Your task to perform on an android device: Search for the best rated electric lawnmower on Home Depot Image 0: 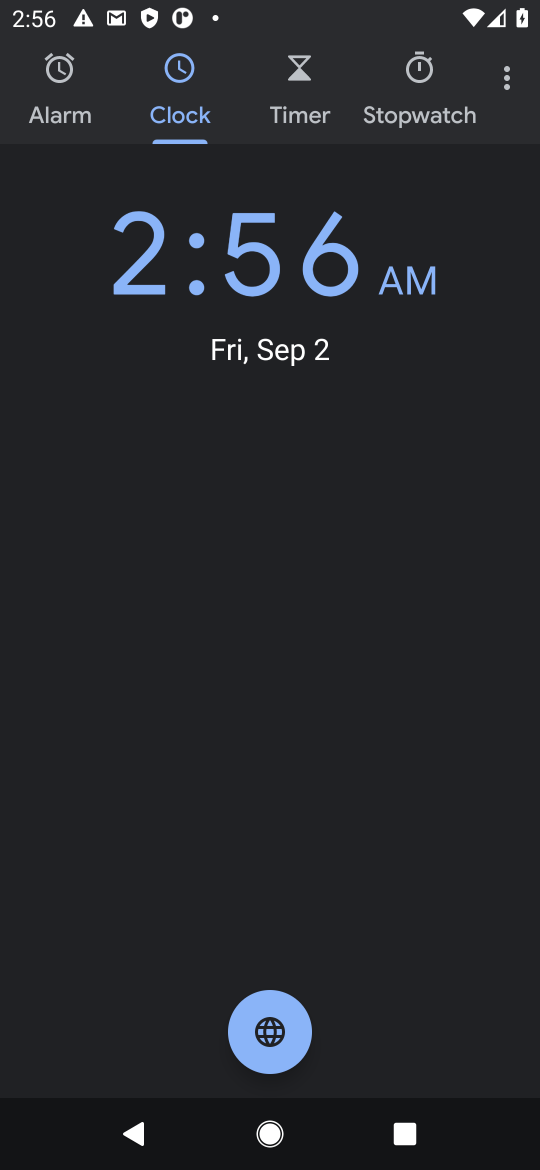
Step 0: press home button
Your task to perform on an android device: Search for the best rated electric lawnmower on Home Depot Image 1: 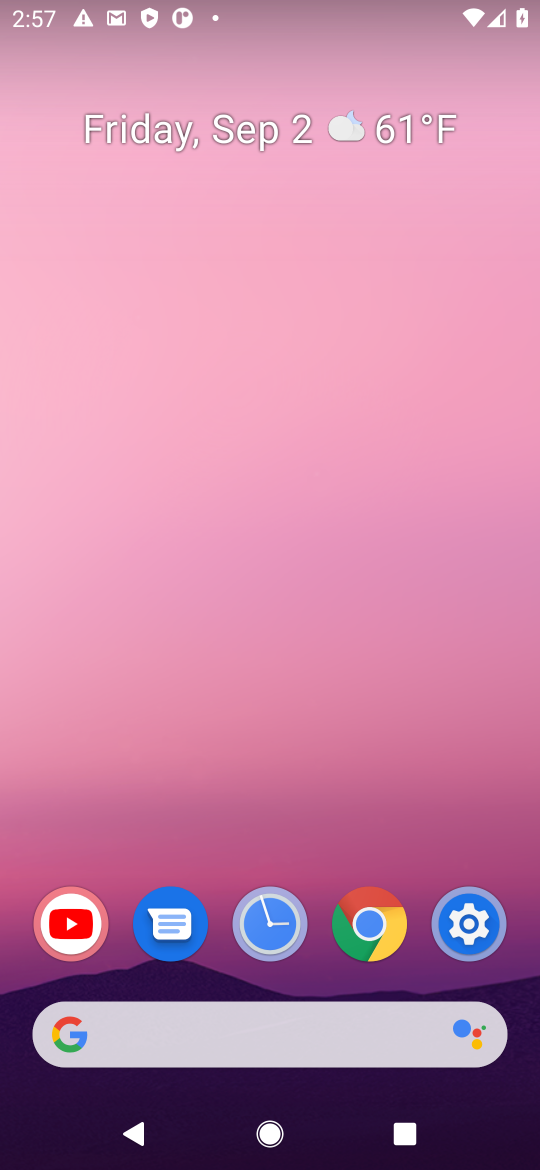
Step 1: click (356, 1035)
Your task to perform on an android device: Search for the best rated electric lawnmower on Home Depot Image 2: 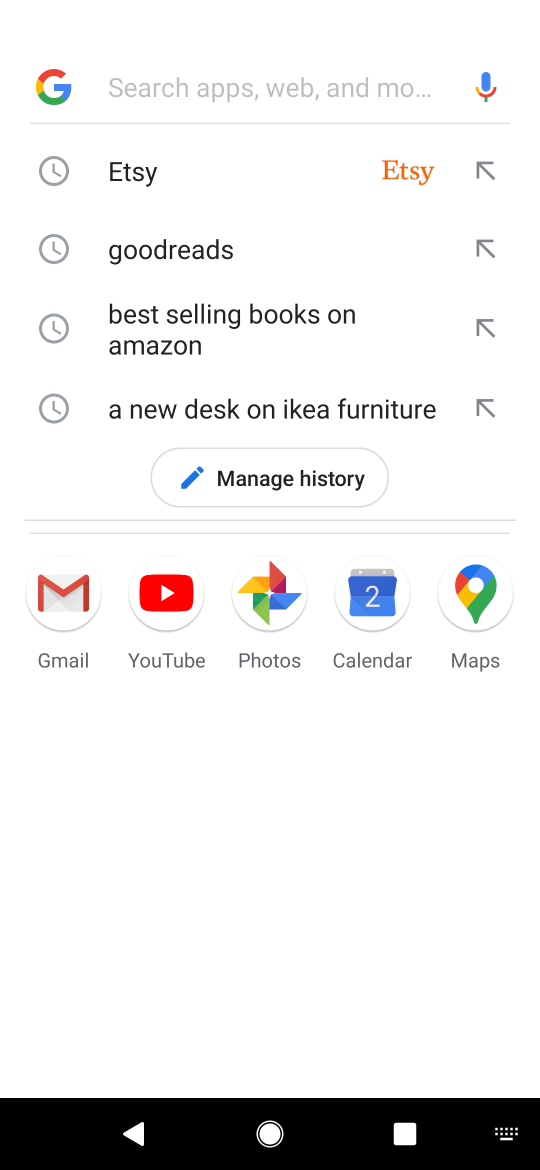
Step 2: press enter
Your task to perform on an android device: Search for the best rated electric lawnmower on Home Depot Image 3: 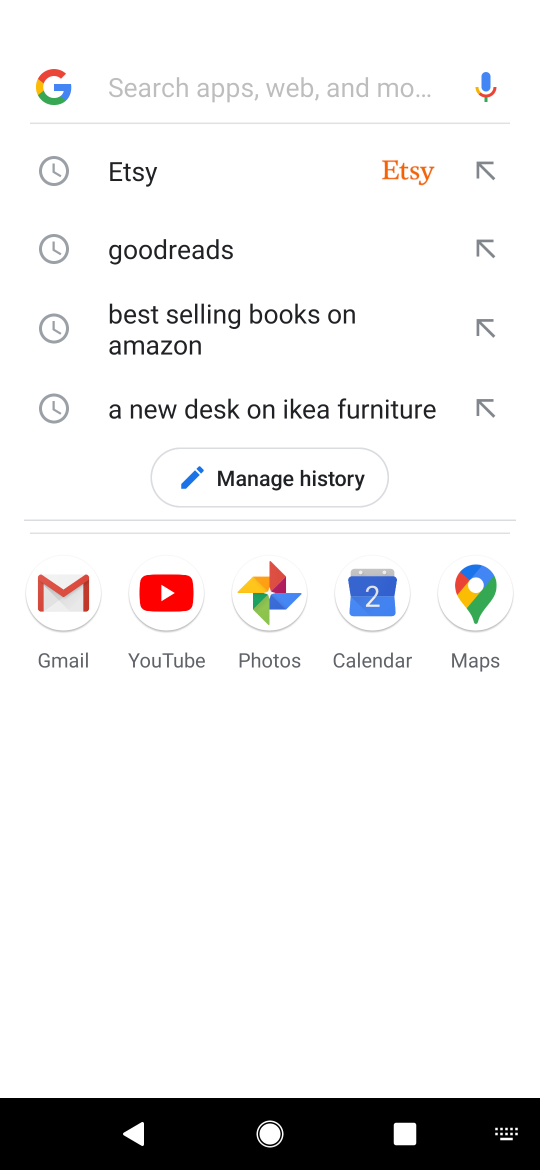
Step 3: type "home depot"
Your task to perform on an android device: Search for the best rated electric lawnmower on Home Depot Image 4: 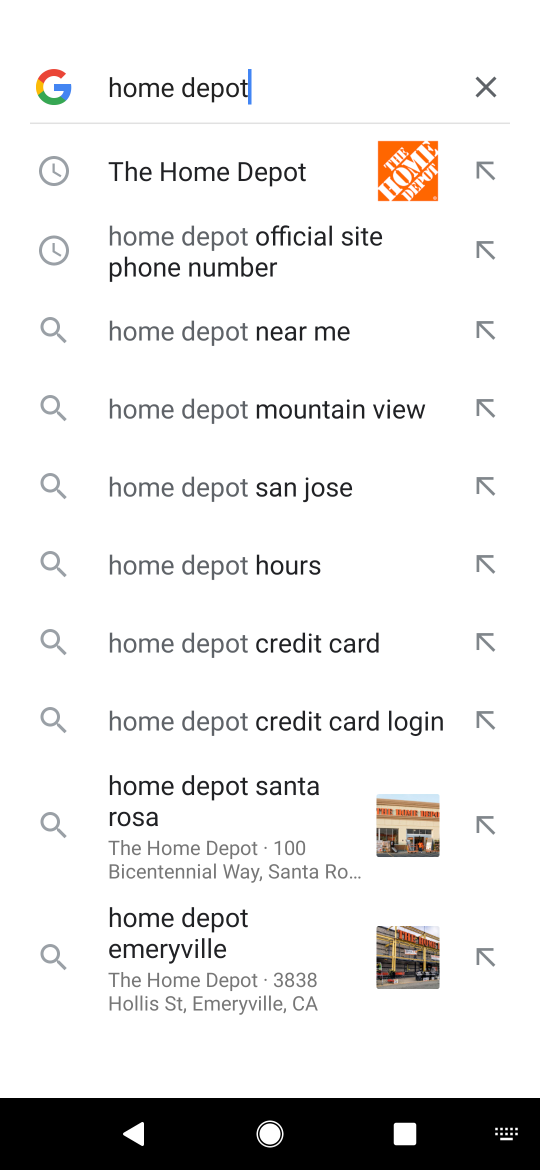
Step 4: click (254, 175)
Your task to perform on an android device: Search for the best rated electric lawnmower on Home Depot Image 5: 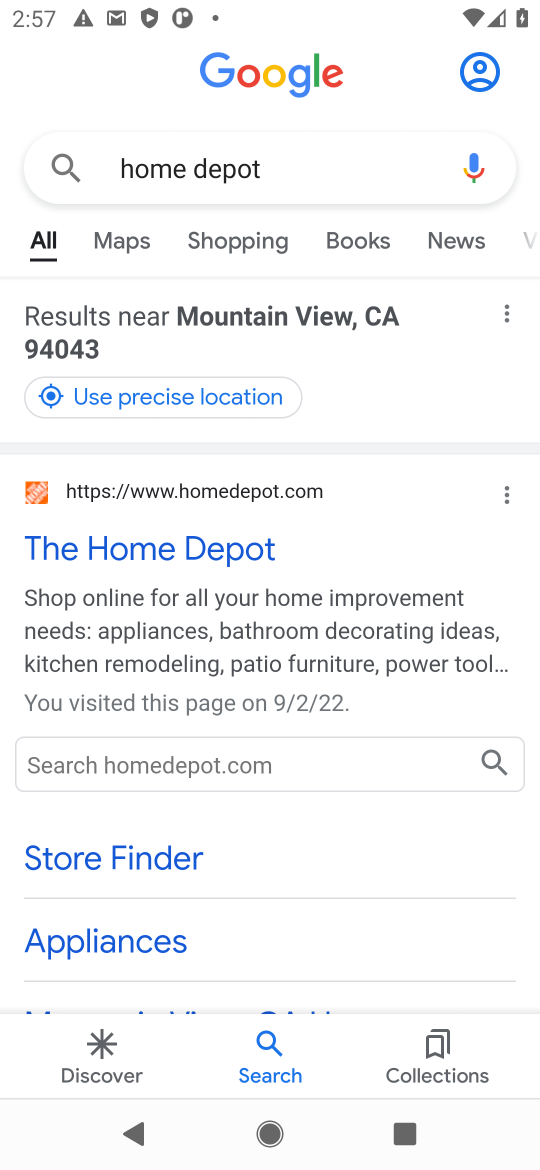
Step 5: click (212, 548)
Your task to perform on an android device: Search for the best rated electric lawnmower on Home Depot Image 6: 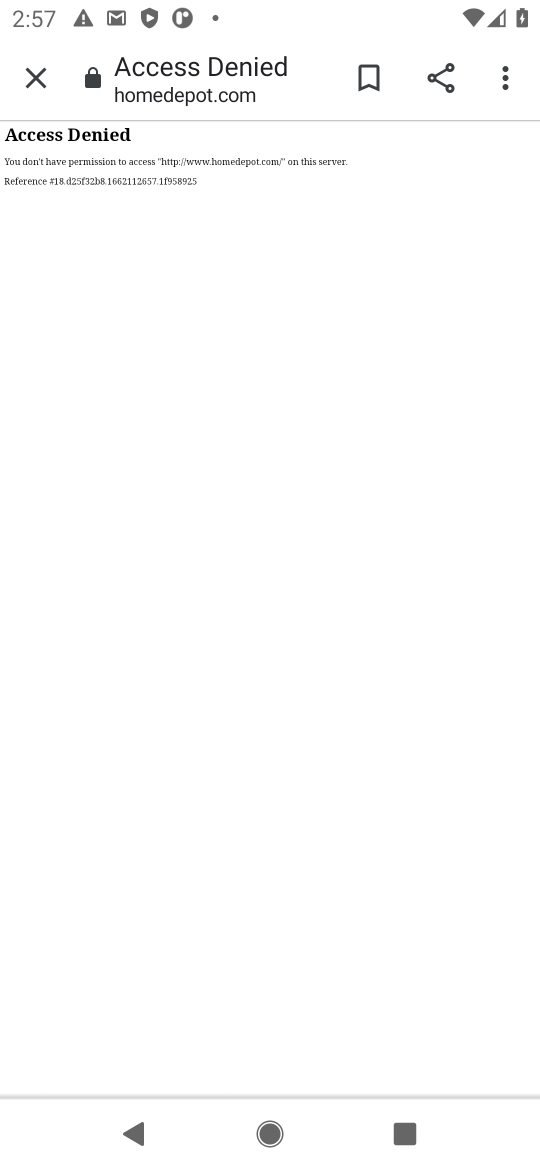
Step 6: task complete